Your task to perform on an android device: Show me popular games on the Play Store Image 0: 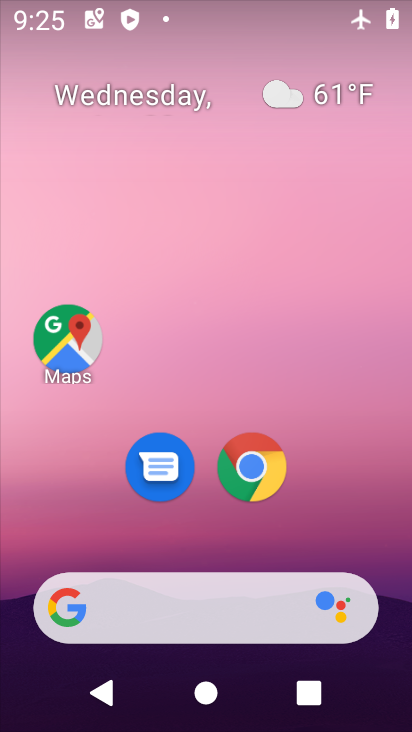
Step 0: drag from (224, 669) to (221, 121)
Your task to perform on an android device: Show me popular games on the Play Store Image 1: 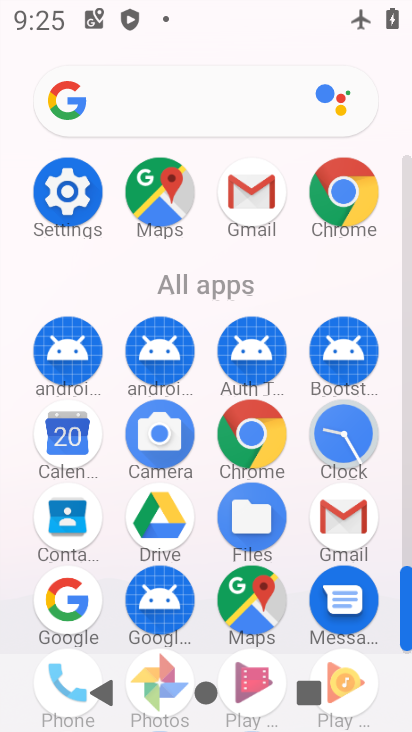
Step 1: drag from (196, 625) to (200, 154)
Your task to perform on an android device: Show me popular games on the Play Store Image 2: 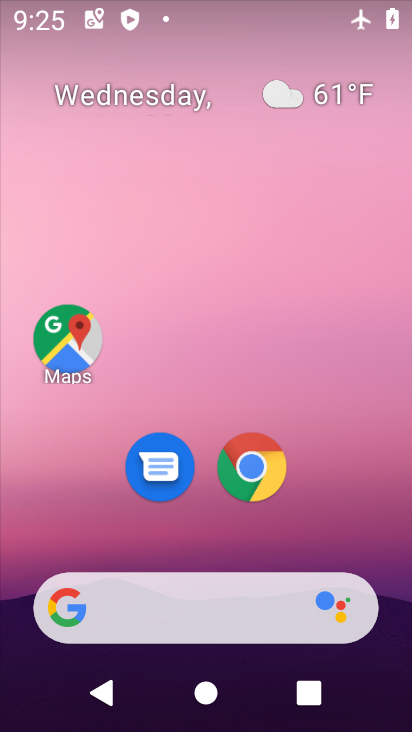
Step 2: drag from (232, 696) to (201, 107)
Your task to perform on an android device: Show me popular games on the Play Store Image 3: 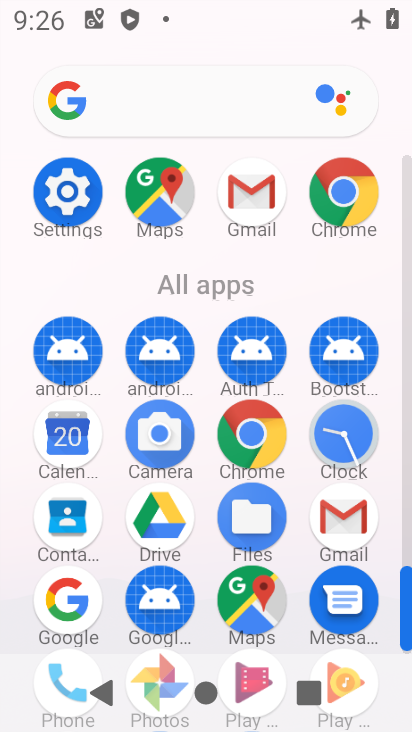
Step 3: drag from (204, 638) to (204, 172)
Your task to perform on an android device: Show me popular games on the Play Store Image 4: 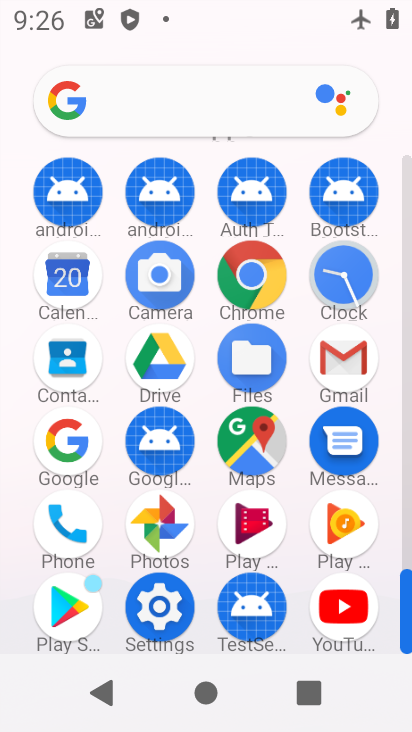
Step 4: click (69, 602)
Your task to perform on an android device: Show me popular games on the Play Store Image 5: 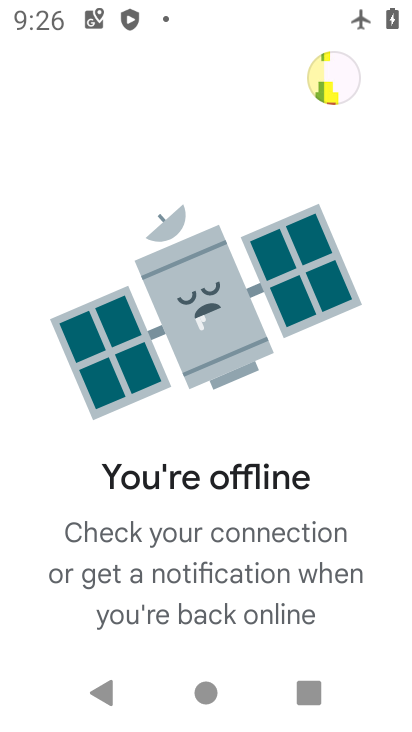
Step 5: task complete